Your task to perform on an android device: open app "Nova Launcher" (install if not already installed), go to login, and select forgot password Image 0: 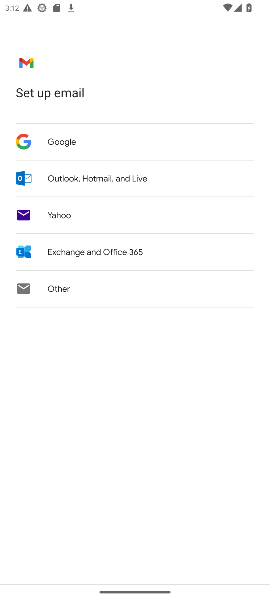
Step 0: press home button
Your task to perform on an android device: open app "Nova Launcher" (install if not already installed), go to login, and select forgot password Image 1: 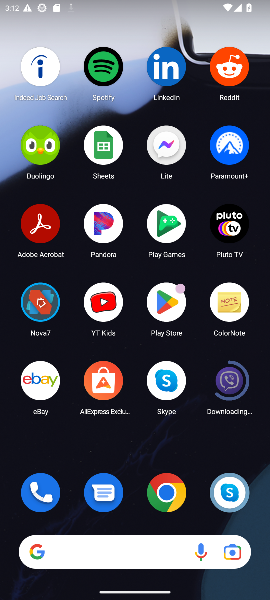
Step 1: click (168, 306)
Your task to perform on an android device: open app "Nova Launcher" (install if not already installed), go to login, and select forgot password Image 2: 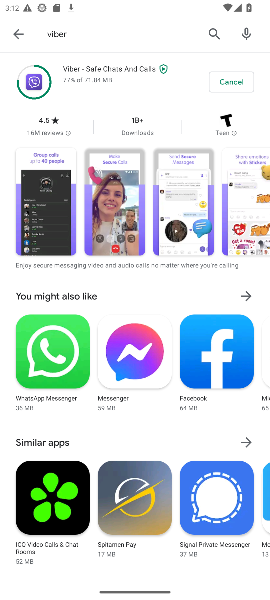
Step 2: click (218, 39)
Your task to perform on an android device: open app "Nova Launcher" (install if not already installed), go to login, and select forgot password Image 3: 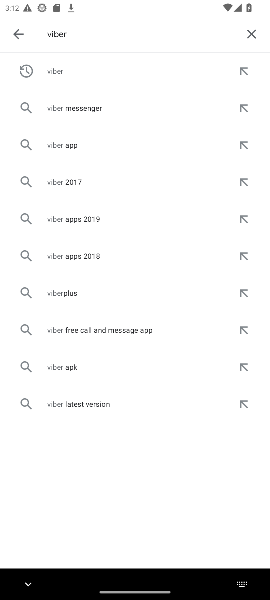
Step 3: click (248, 39)
Your task to perform on an android device: open app "Nova Launcher" (install if not already installed), go to login, and select forgot password Image 4: 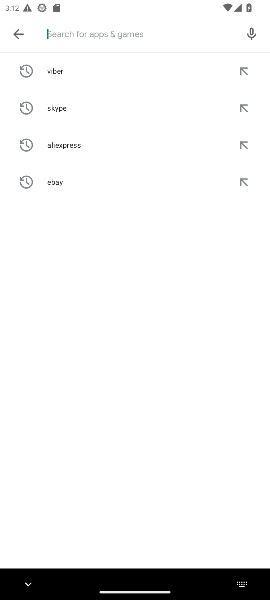
Step 4: type "nova launcher"
Your task to perform on an android device: open app "Nova Launcher" (install if not already installed), go to login, and select forgot password Image 5: 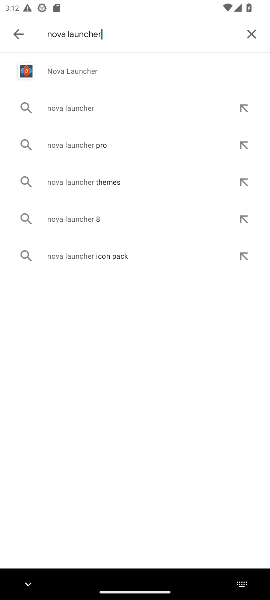
Step 5: click (141, 81)
Your task to perform on an android device: open app "Nova Launcher" (install if not already installed), go to login, and select forgot password Image 6: 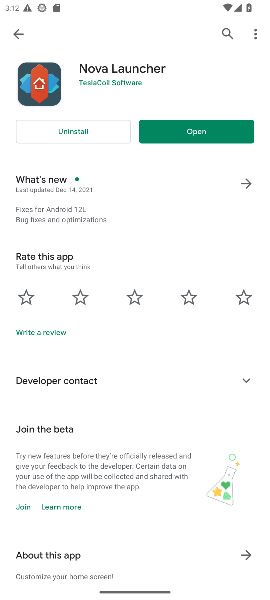
Step 6: click (203, 129)
Your task to perform on an android device: open app "Nova Launcher" (install if not already installed), go to login, and select forgot password Image 7: 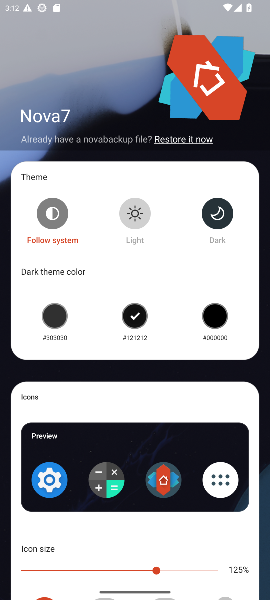
Step 7: drag from (149, 539) to (151, 36)
Your task to perform on an android device: open app "Nova Launcher" (install if not already installed), go to login, and select forgot password Image 8: 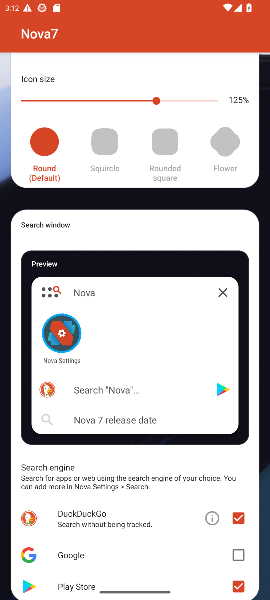
Step 8: drag from (169, 466) to (138, 57)
Your task to perform on an android device: open app "Nova Launcher" (install if not already installed), go to login, and select forgot password Image 9: 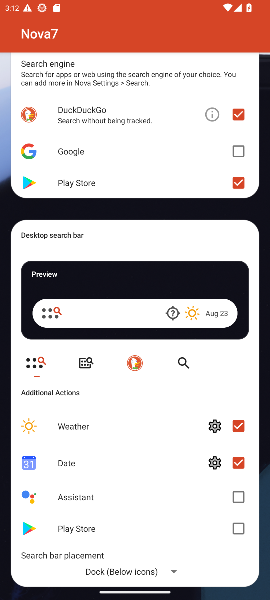
Step 9: click (150, 570)
Your task to perform on an android device: open app "Nova Launcher" (install if not already installed), go to login, and select forgot password Image 10: 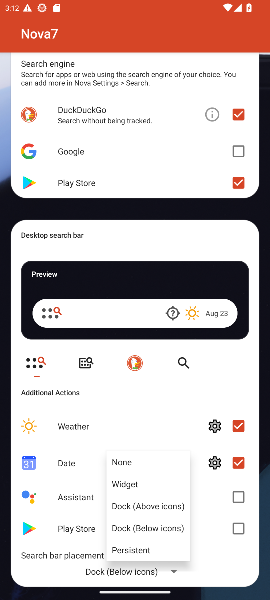
Step 10: click (135, 409)
Your task to perform on an android device: open app "Nova Launcher" (install if not already installed), go to login, and select forgot password Image 11: 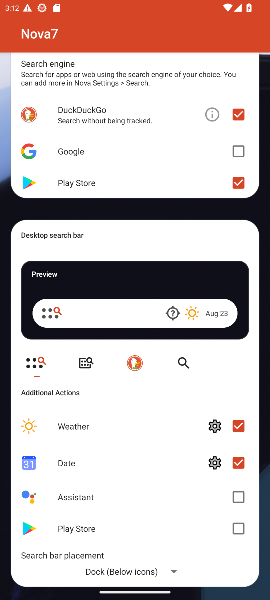
Step 11: task complete